Your task to perform on an android device: change the clock display to digital Image 0: 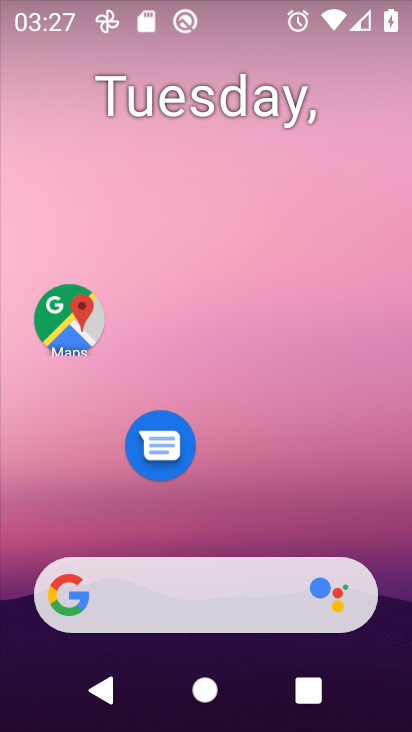
Step 0: drag from (268, 454) to (199, 128)
Your task to perform on an android device: change the clock display to digital Image 1: 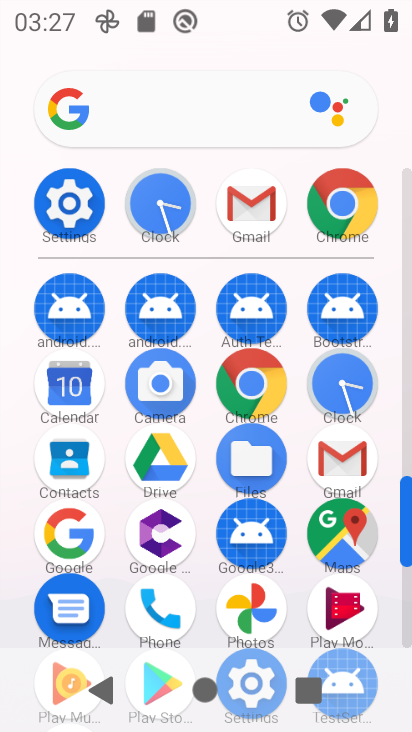
Step 1: click (172, 205)
Your task to perform on an android device: change the clock display to digital Image 2: 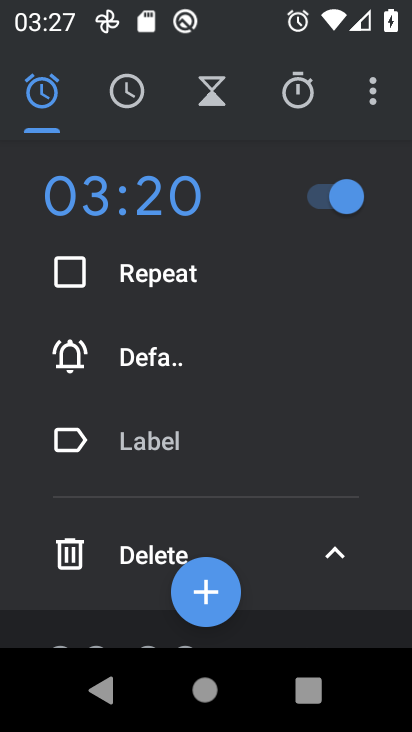
Step 2: click (369, 92)
Your task to perform on an android device: change the clock display to digital Image 3: 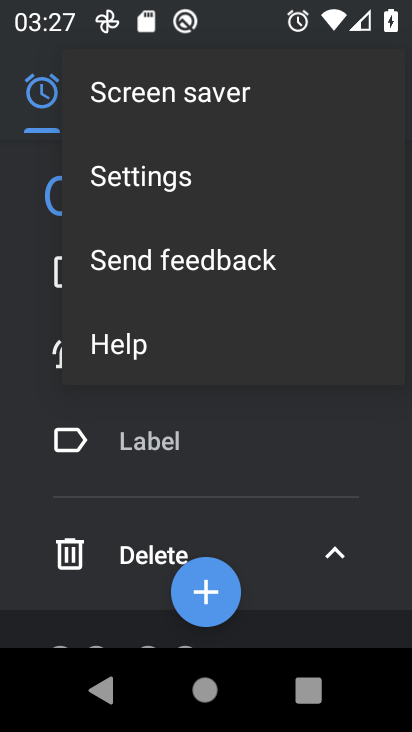
Step 3: click (157, 171)
Your task to perform on an android device: change the clock display to digital Image 4: 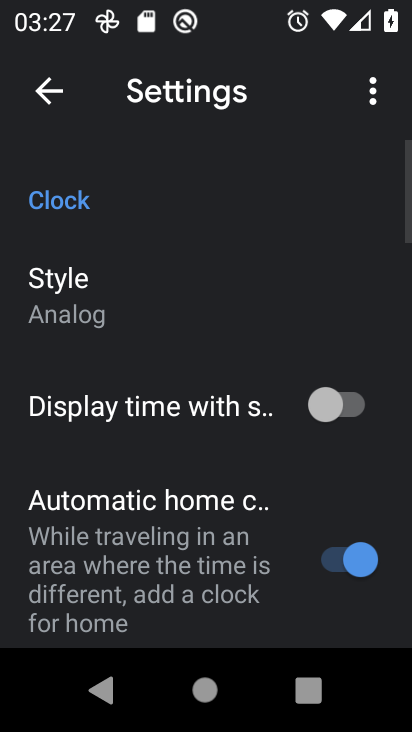
Step 4: click (66, 285)
Your task to perform on an android device: change the clock display to digital Image 5: 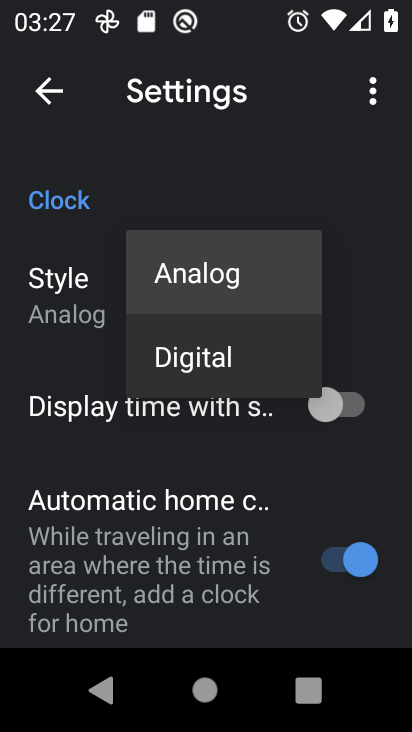
Step 5: click (189, 355)
Your task to perform on an android device: change the clock display to digital Image 6: 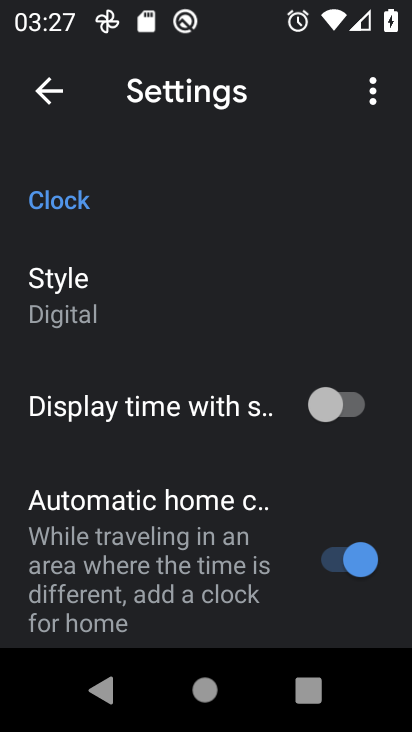
Step 6: task complete